Your task to perform on an android device: delete browsing data in the chrome app Image 0: 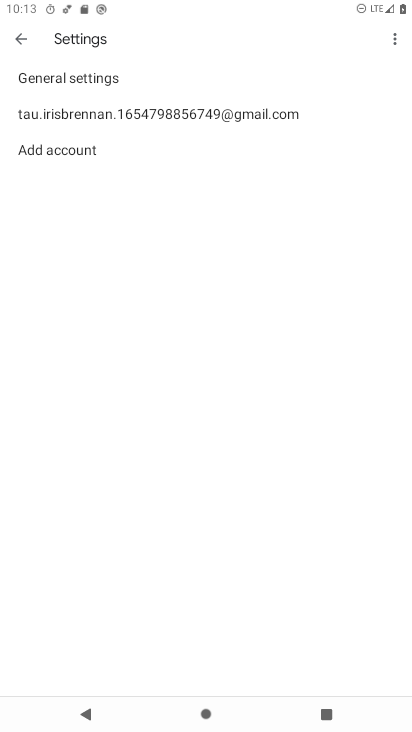
Step 0: press home button
Your task to perform on an android device: delete browsing data in the chrome app Image 1: 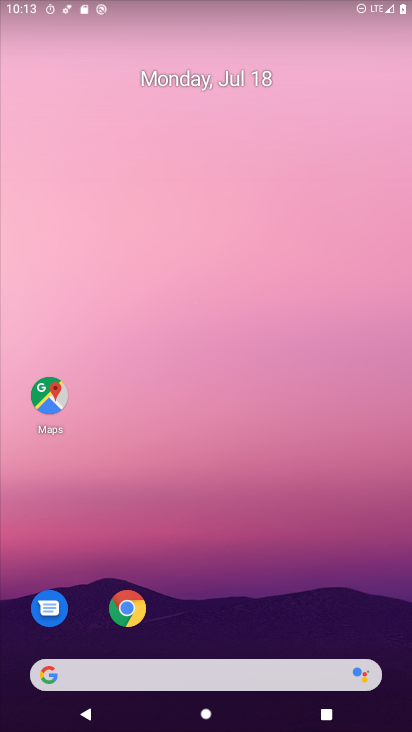
Step 1: click (124, 611)
Your task to perform on an android device: delete browsing data in the chrome app Image 2: 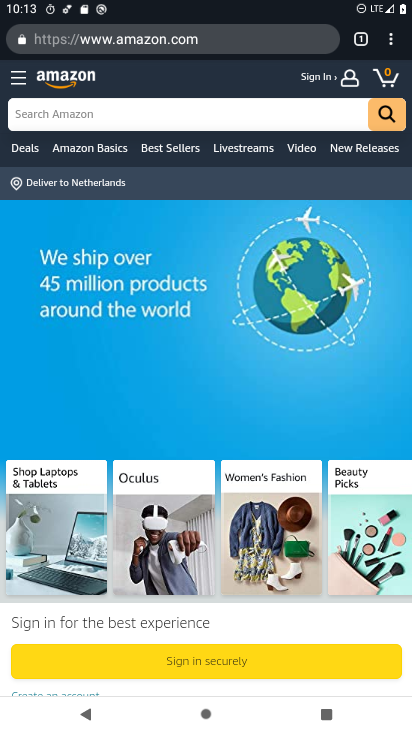
Step 2: click (388, 40)
Your task to perform on an android device: delete browsing data in the chrome app Image 3: 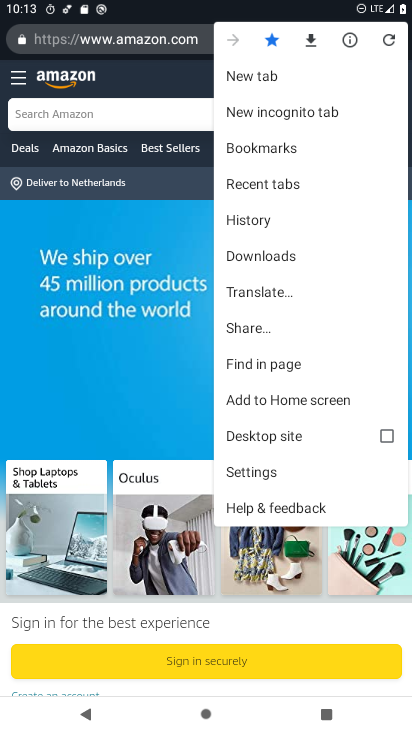
Step 3: click (247, 217)
Your task to perform on an android device: delete browsing data in the chrome app Image 4: 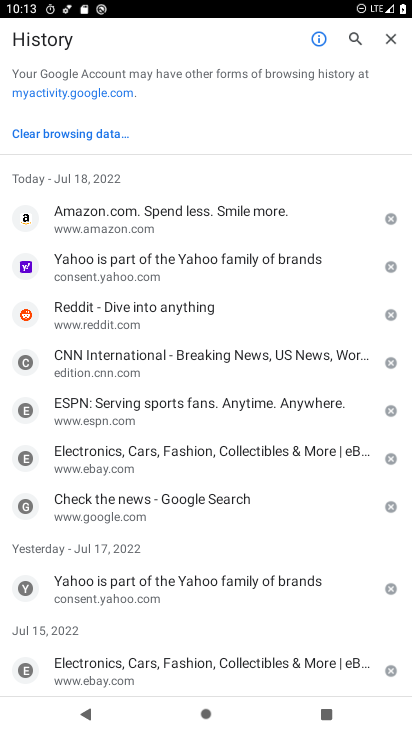
Step 4: click (99, 141)
Your task to perform on an android device: delete browsing data in the chrome app Image 5: 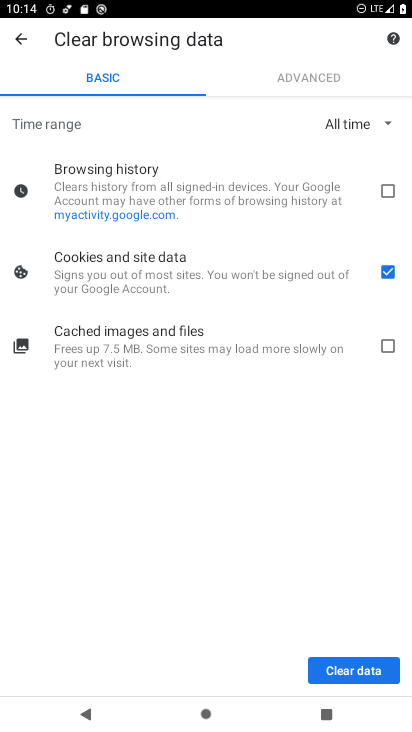
Step 5: click (384, 195)
Your task to perform on an android device: delete browsing data in the chrome app Image 6: 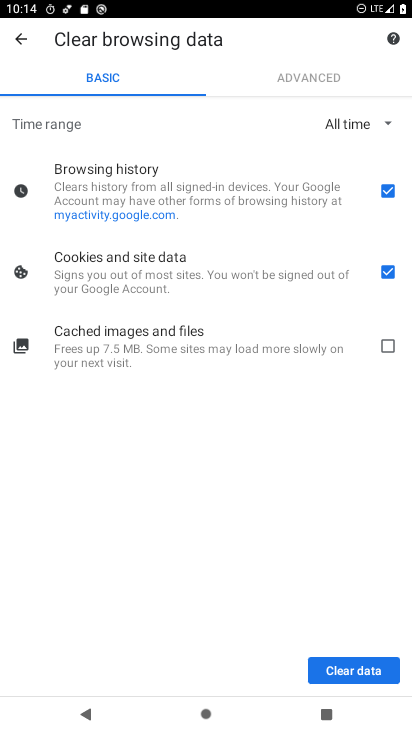
Step 6: click (390, 340)
Your task to perform on an android device: delete browsing data in the chrome app Image 7: 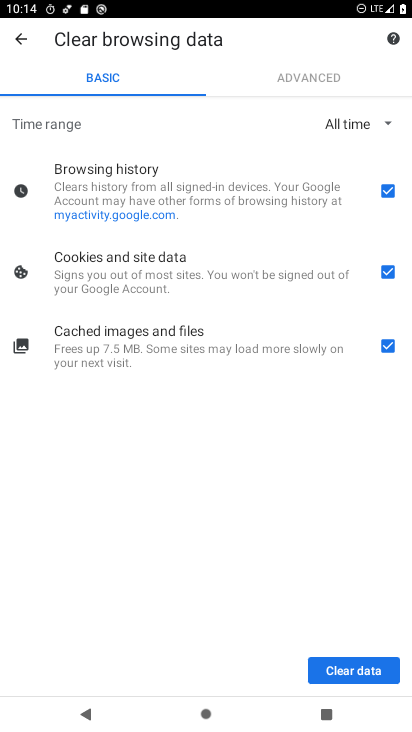
Step 7: click (329, 669)
Your task to perform on an android device: delete browsing data in the chrome app Image 8: 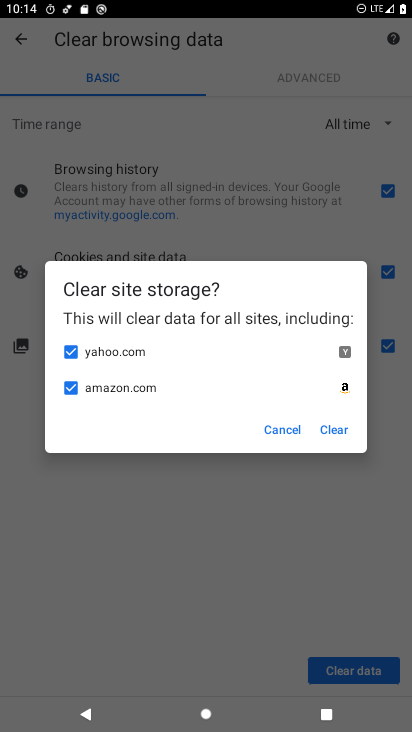
Step 8: click (331, 421)
Your task to perform on an android device: delete browsing data in the chrome app Image 9: 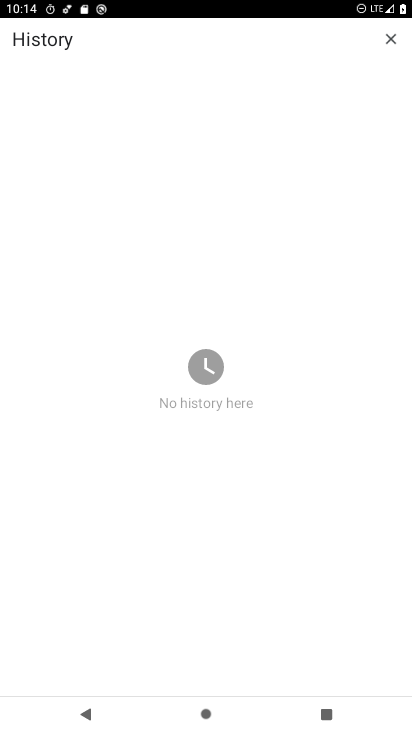
Step 9: task complete